Your task to perform on an android device: find snoozed emails in the gmail app Image 0: 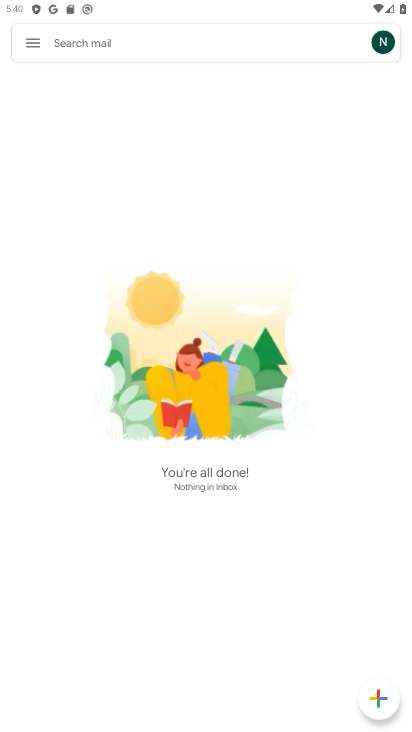
Step 0: press home button
Your task to perform on an android device: find snoozed emails in the gmail app Image 1: 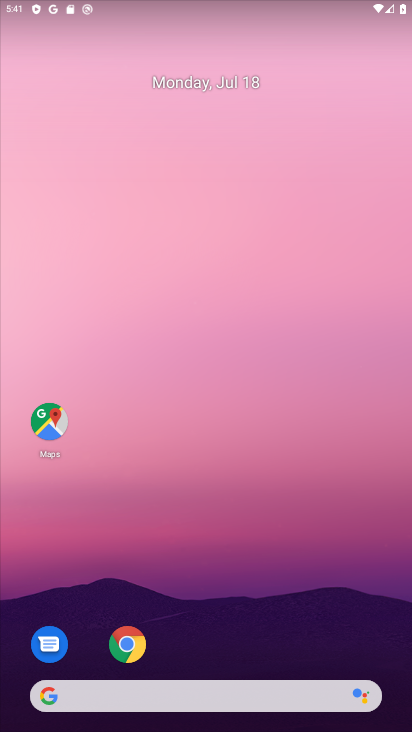
Step 1: press home button
Your task to perform on an android device: find snoozed emails in the gmail app Image 2: 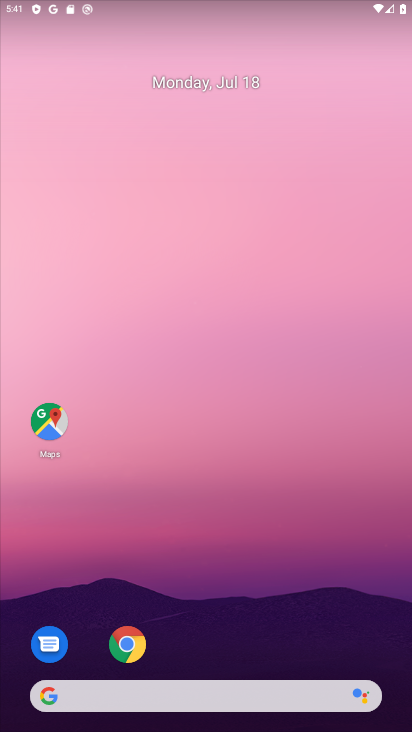
Step 2: drag from (306, 622) to (376, 4)
Your task to perform on an android device: find snoozed emails in the gmail app Image 3: 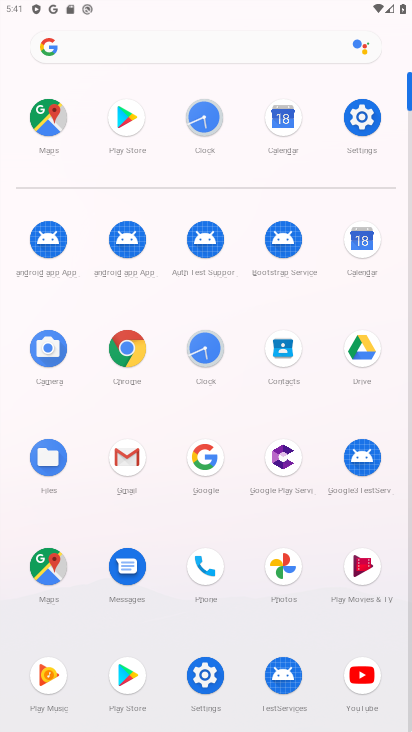
Step 3: click (126, 458)
Your task to perform on an android device: find snoozed emails in the gmail app Image 4: 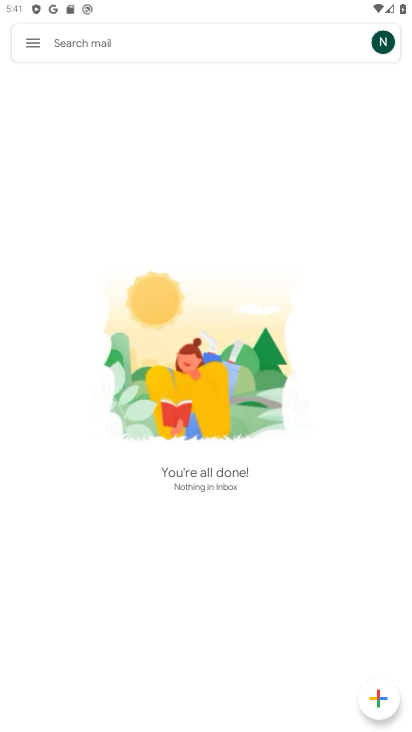
Step 4: click (26, 38)
Your task to perform on an android device: find snoozed emails in the gmail app Image 5: 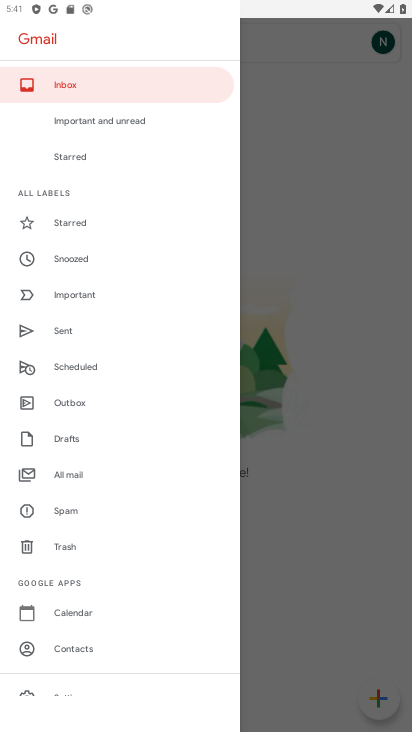
Step 5: click (88, 249)
Your task to perform on an android device: find snoozed emails in the gmail app Image 6: 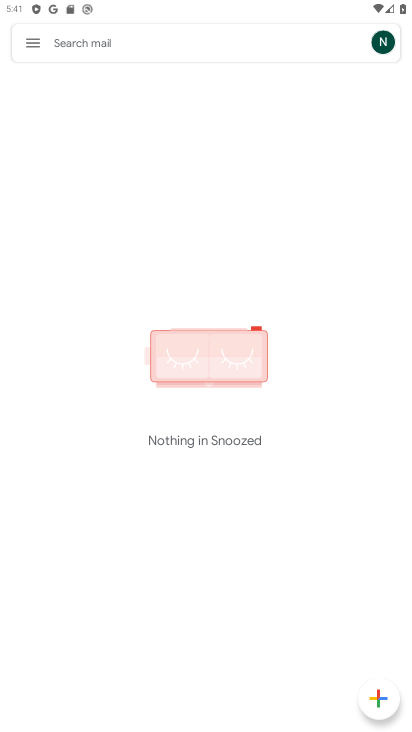
Step 6: task complete